Your task to perform on an android device: Open internet settings Image 0: 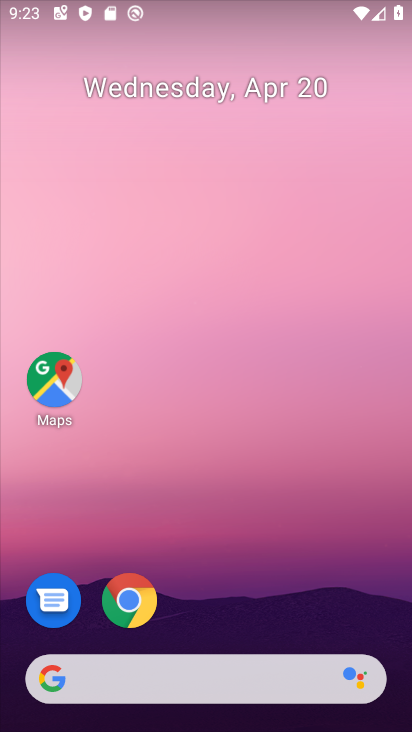
Step 0: drag from (205, 641) to (173, 9)
Your task to perform on an android device: Open internet settings Image 1: 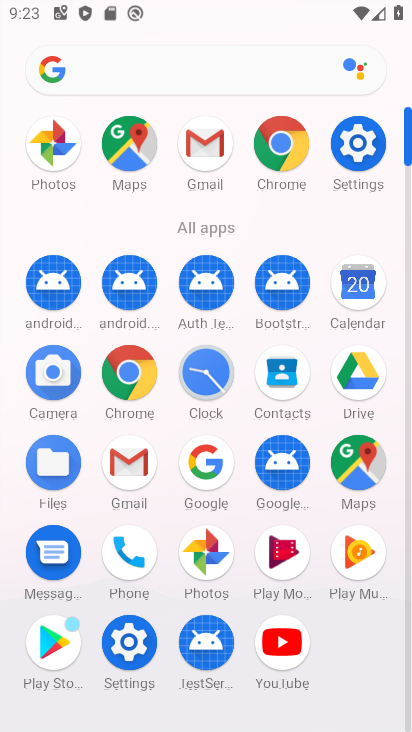
Step 1: click (363, 138)
Your task to perform on an android device: Open internet settings Image 2: 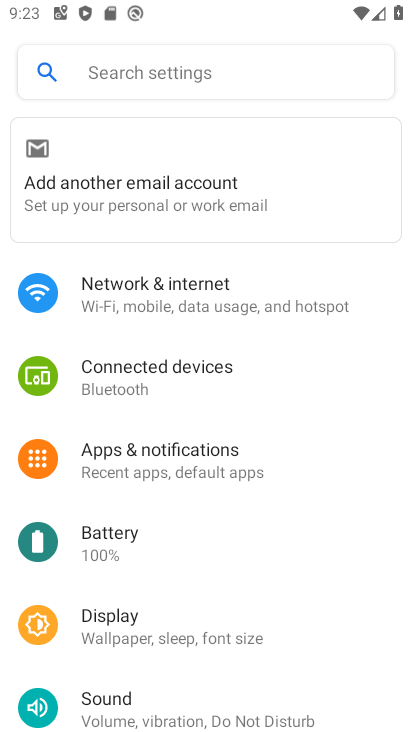
Step 2: click (180, 293)
Your task to perform on an android device: Open internet settings Image 3: 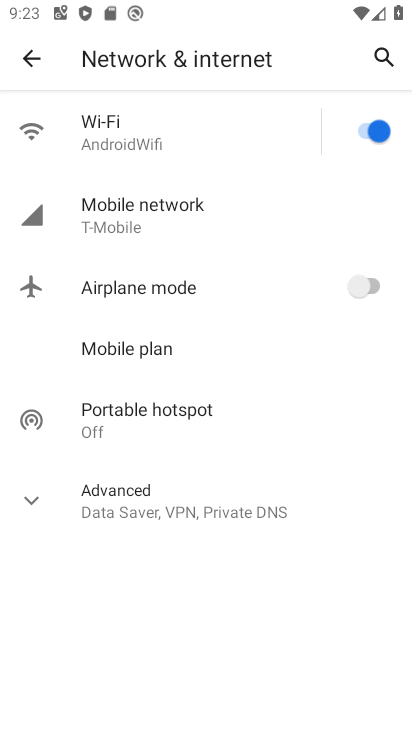
Step 3: click (170, 216)
Your task to perform on an android device: Open internet settings Image 4: 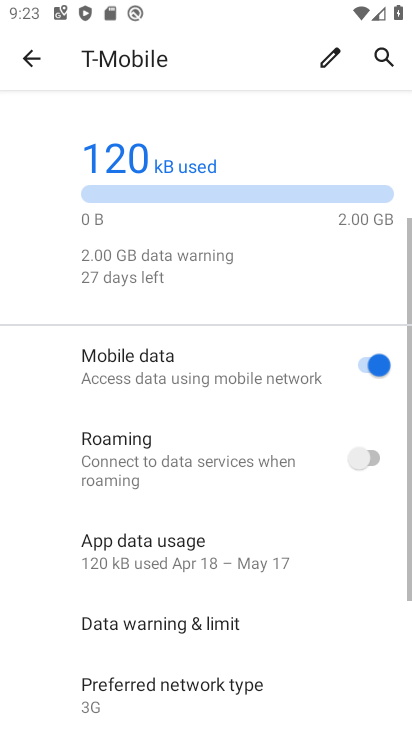
Step 4: task complete